Your task to perform on an android device: Open network settings Image 0: 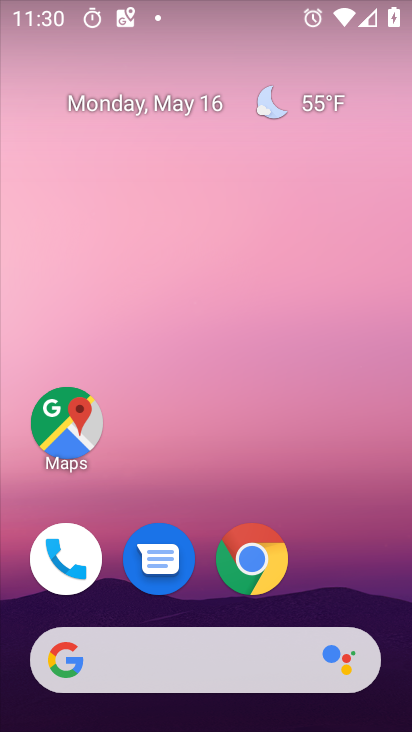
Step 0: drag from (350, 567) to (334, 68)
Your task to perform on an android device: Open network settings Image 1: 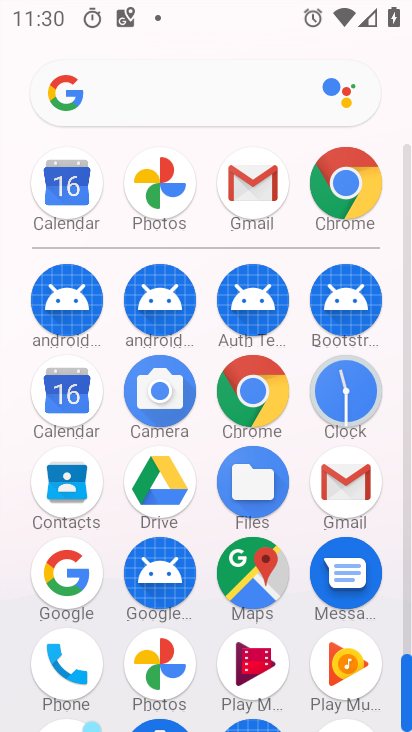
Step 1: drag from (304, 621) to (310, 259)
Your task to perform on an android device: Open network settings Image 2: 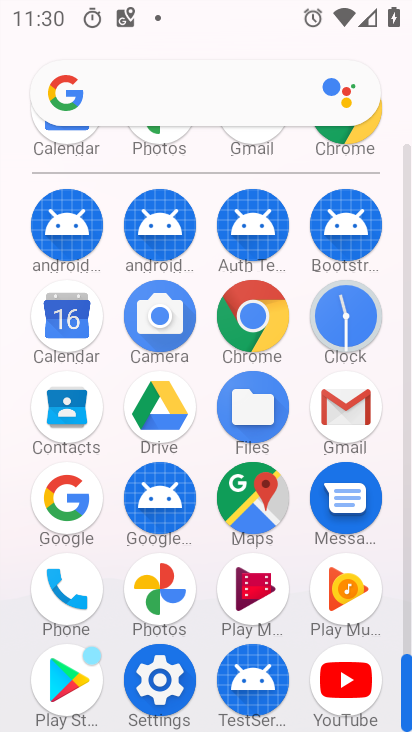
Step 2: click (157, 677)
Your task to perform on an android device: Open network settings Image 3: 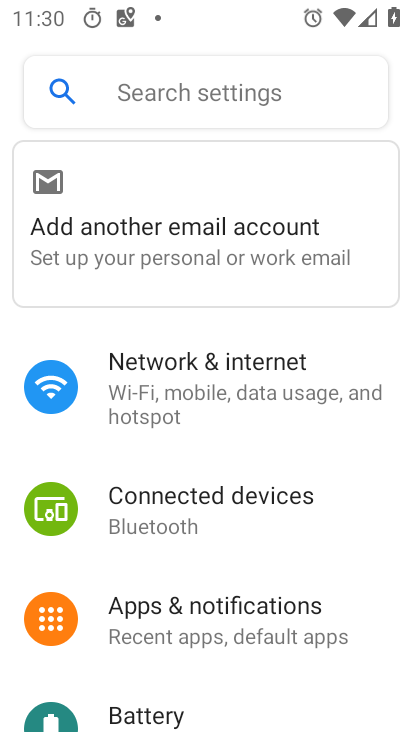
Step 3: click (205, 376)
Your task to perform on an android device: Open network settings Image 4: 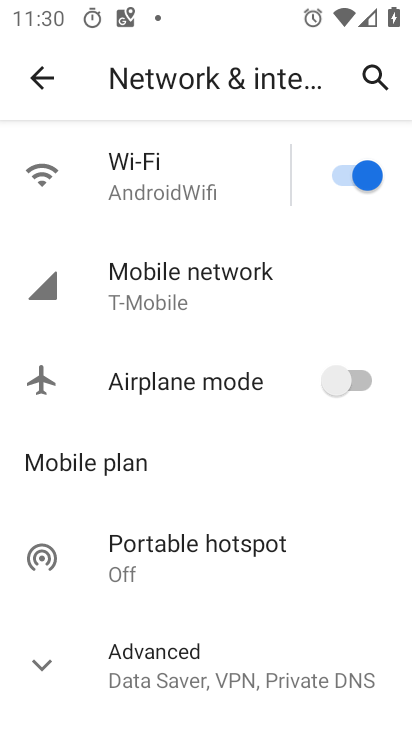
Step 4: task complete